Your task to perform on an android device: What's the weather going to be this weekend? Image 0: 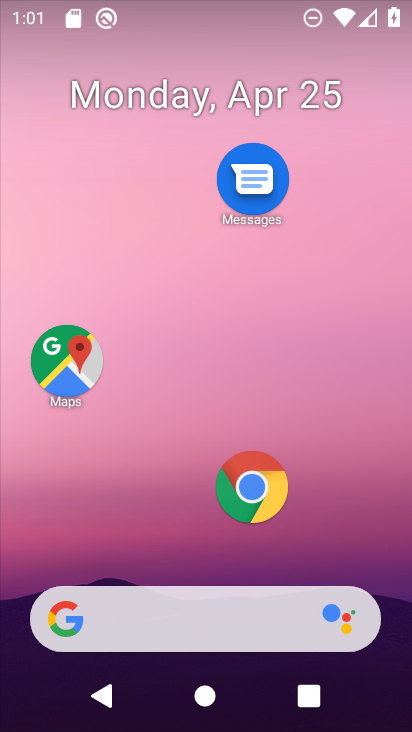
Step 0: drag from (330, 543) to (292, 9)
Your task to perform on an android device: What's the weather going to be this weekend? Image 1: 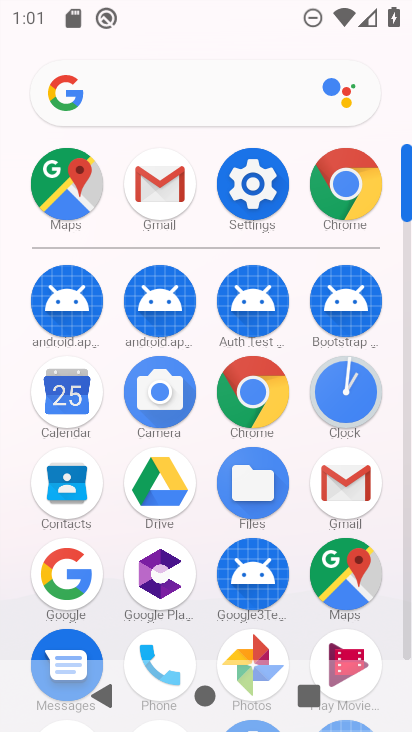
Step 1: click (262, 378)
Your task to perform on an android device: What's the weather going to be this weekend? Image 2: 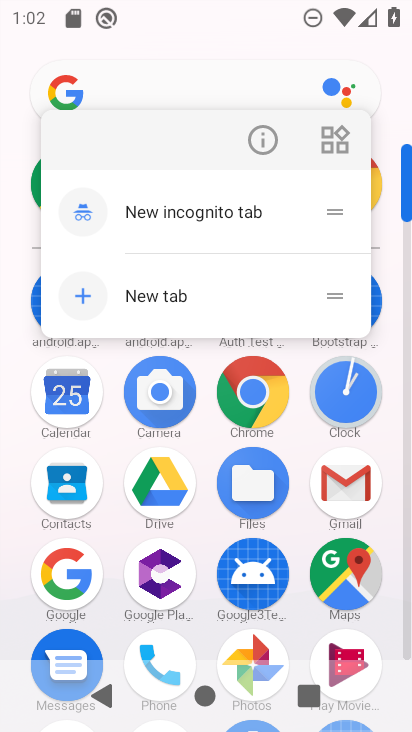
Step 2: click (261, 394)
Your task to perform on an android device: What's the weather going to be this weekend? Image 3: 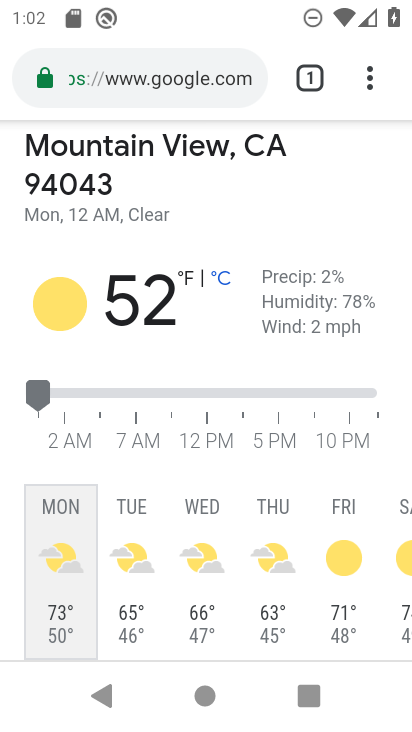
Step 3: click (232, 75)
Your task to perform on an android device: What's the weather going to be this weekend? Image 4: 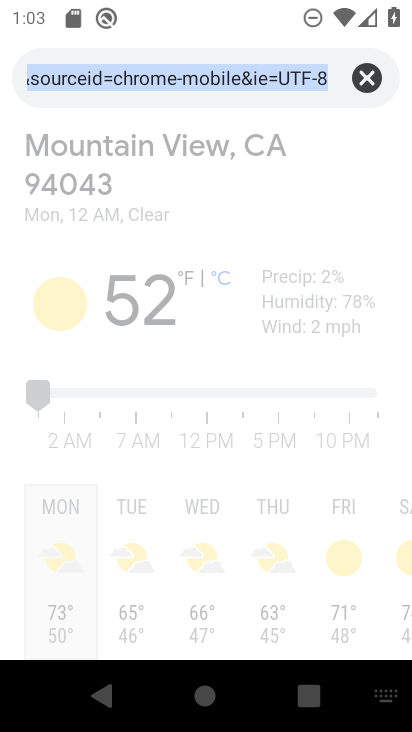
Step 4: type "weather on this weekend"
Your task to perform on an android device: What's the weather going to be this weekend? Image 5: 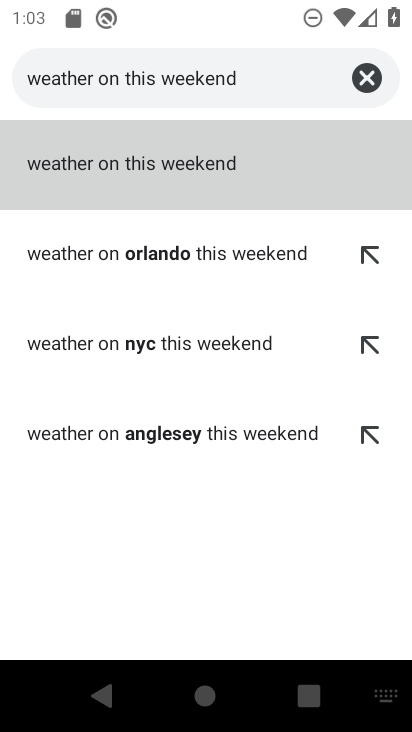
Step 5: click (164, 184)
Your task to perform on an android device: What's the weather going to be this weekend? Image 6: 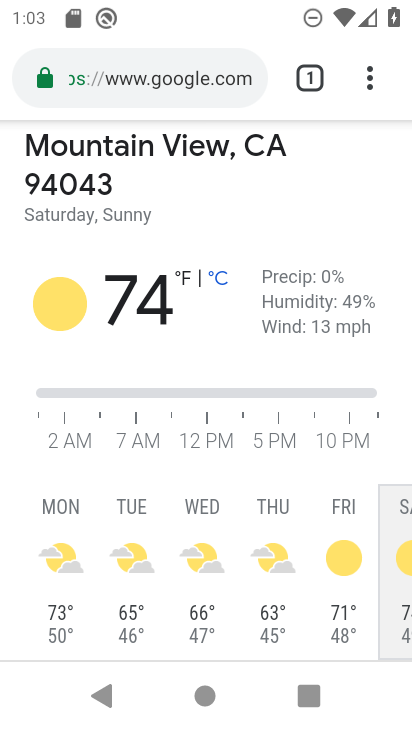
Step 6: task complete